Your task to perform on an android device: turn on translation in the chrome app Image 0: 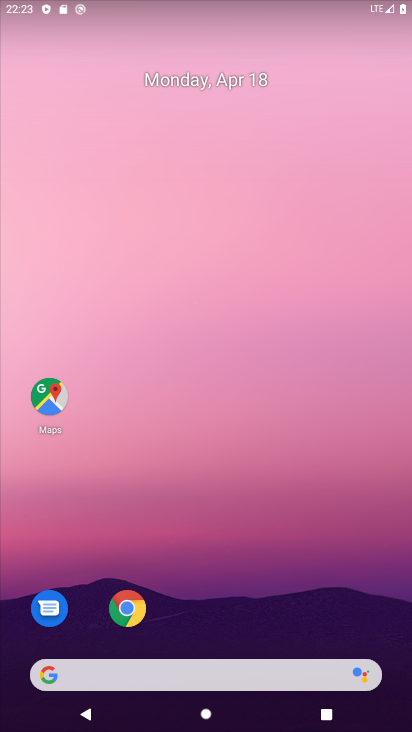
Step 0: click (136, 619)
Your task to perform on an android device: turn on translation in the chrome app Image 1: 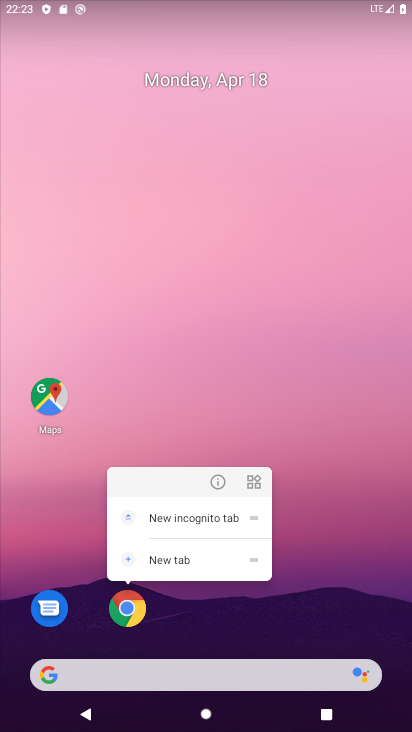
Step 1: click (131, 616)
Your task to perform on an android device: turn on translation in the chrome app Image 2: 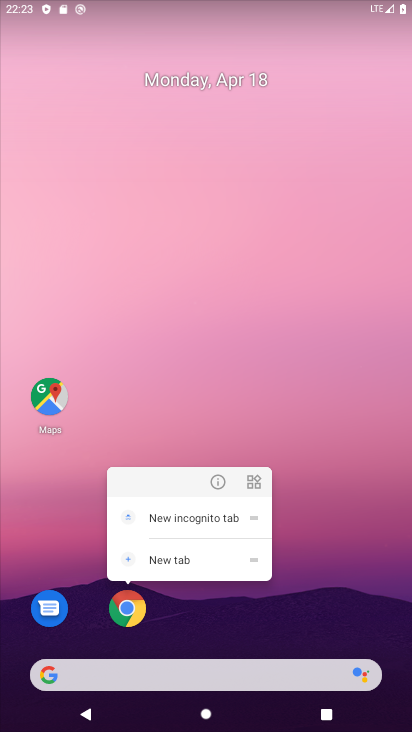
Step 2: click (130, 604)
Your task to perform on an android device: turn on translation in the chrome app Image 3: 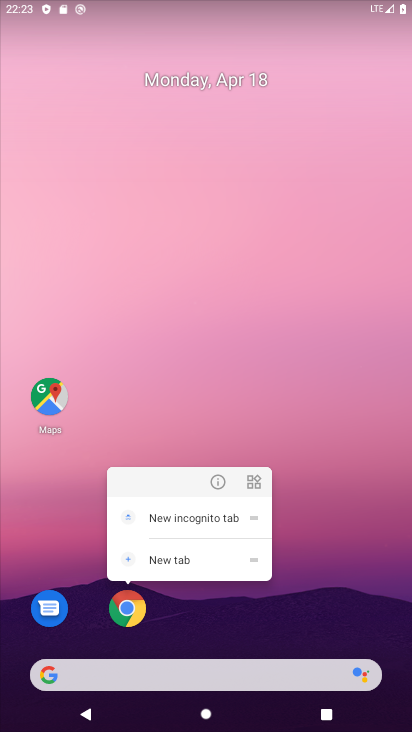
Step 3: click (129, 618)
Your task to perform on an android device: turn on translation in the chrome app Image 4: 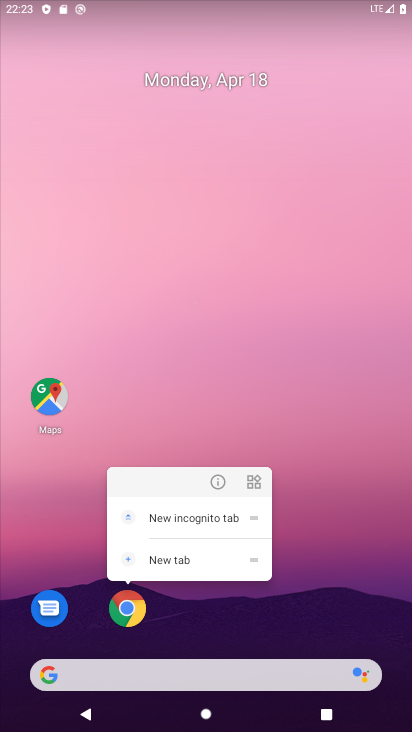
Step 4: click (124, 603)
Your task to perform on an android device: turn on translation in the chrome app Image 5: 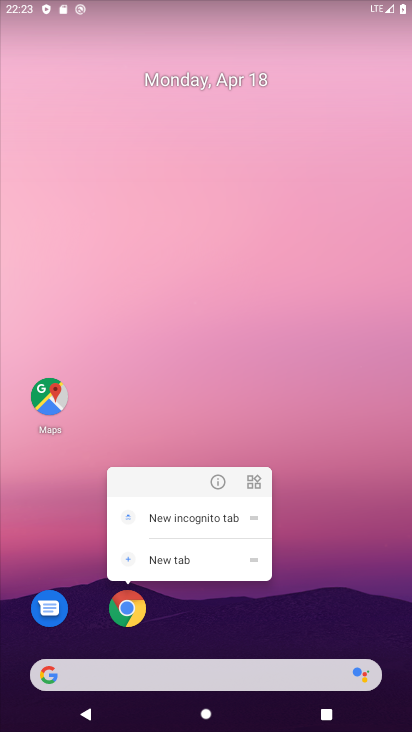
Step 5: click (126, 603)
Your task to perform on an android device: turn on translation in the chrome app Image 6: 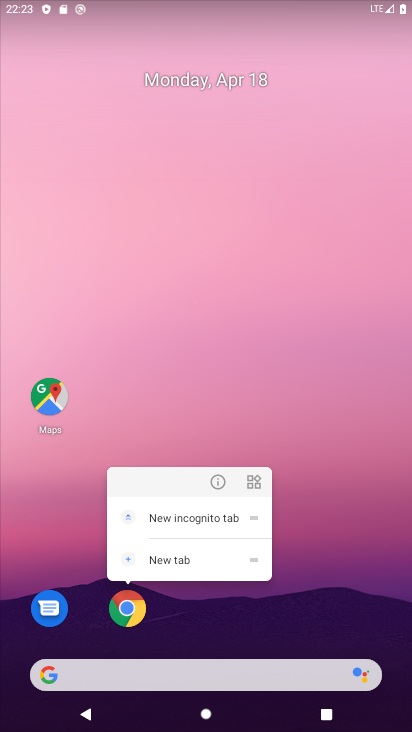
Step 6: click (126, 608)
Your task to perform on an android device: turn on translation in the chrome app Image 7: 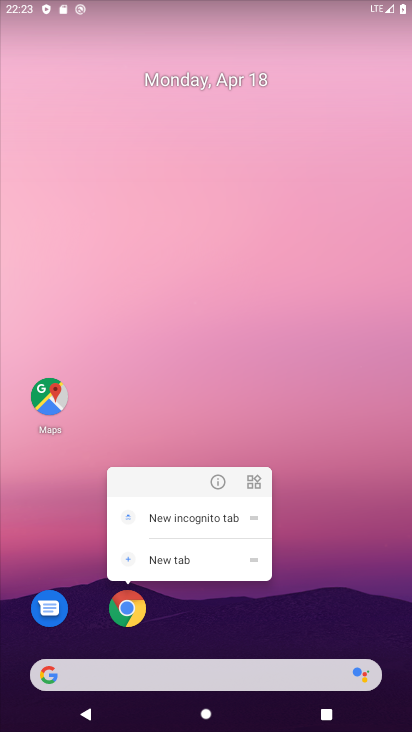
Step 7: click (123, 606)
Your task to perform on an android device: turn on translation in the chrome app Image 8: 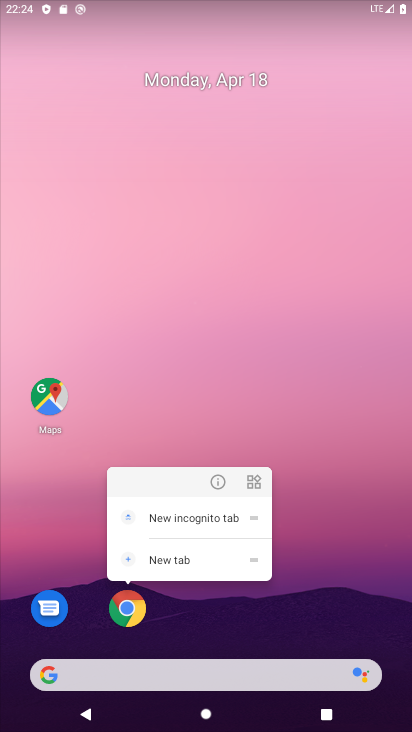
Step 8: click (121, 611)
Your task to perform on an android device: turn on translation in the chrome app Image 9: 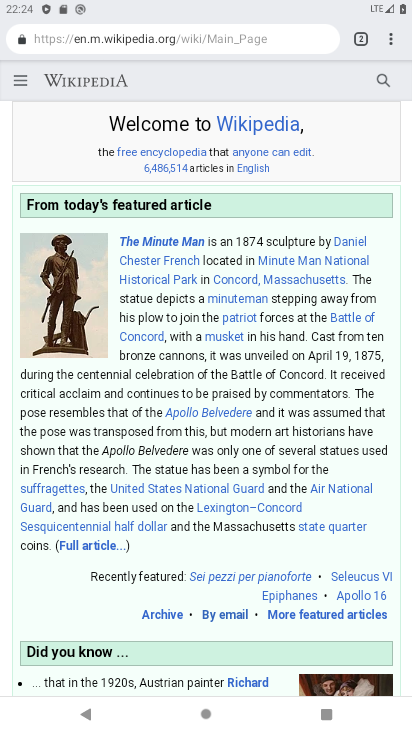
Step 9: click (388, 34)
Your task to perform on an android device: turn on translation in the chrome app Image 10: 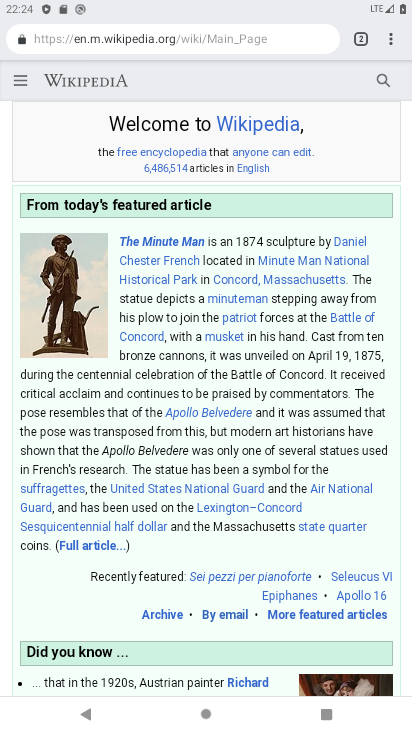
Step 10: click (391, 33)
Your task to perform on an android device: turn on translation in the chrome app Image 11: 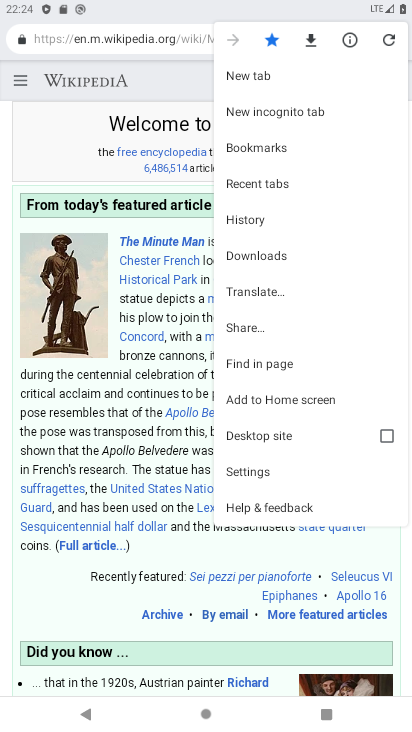
Step 11: click (263, 470)
Your task to perform on an android device: turn on translation in the chrome app Image 12: 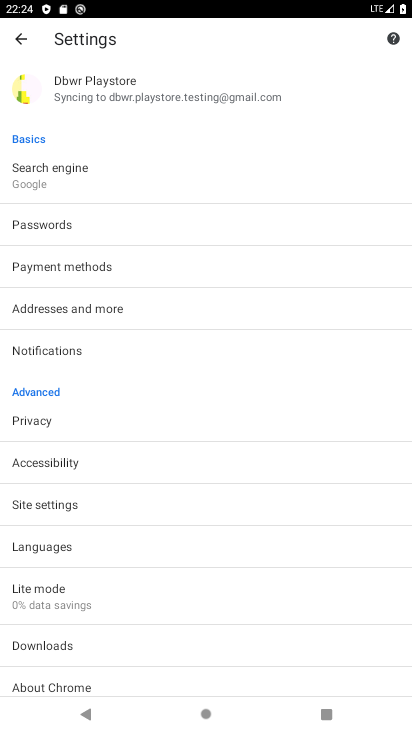
Step 12: click (112, 541)
Your task to perform on an android device: turn on translation in the chrome app Image 13: 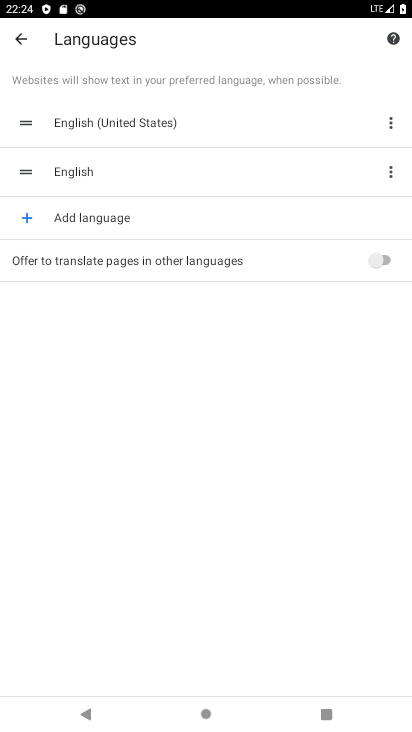
Step 13: click (372, 257)
Your task to perform on an android device: turn on translation in the chrome app Image 14: 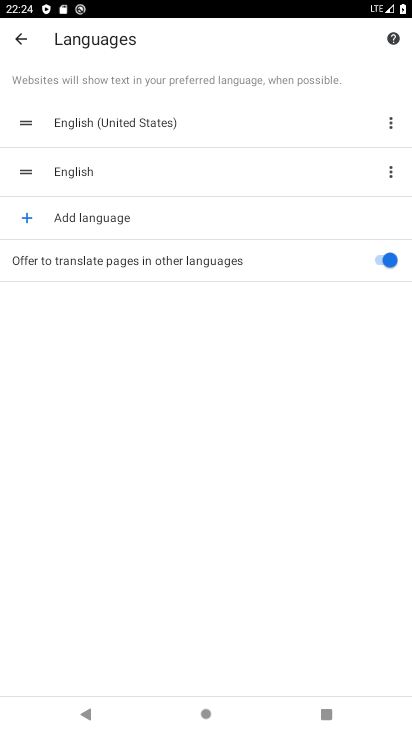
Step 14: task complete